Your task to perform on an android device: set the stopwatch Image 0: 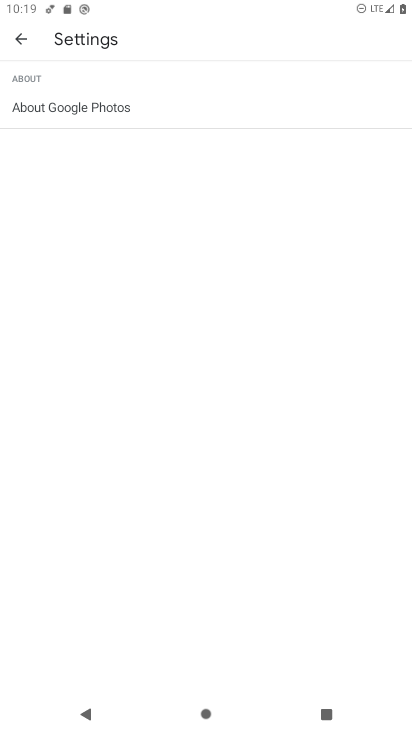
Step 0: press home button
Your task to perform on an android device: set the stopwatch Image 1: 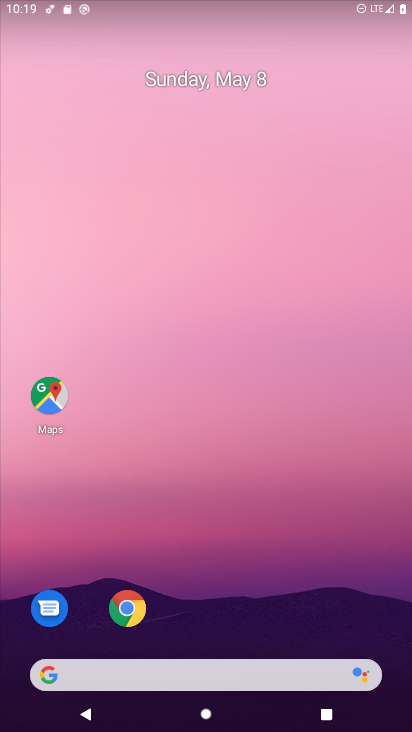
Step 1: drag from (184, 637) to (258, 144)
Your task to perform on an android device: set the stopwatch Image 2: 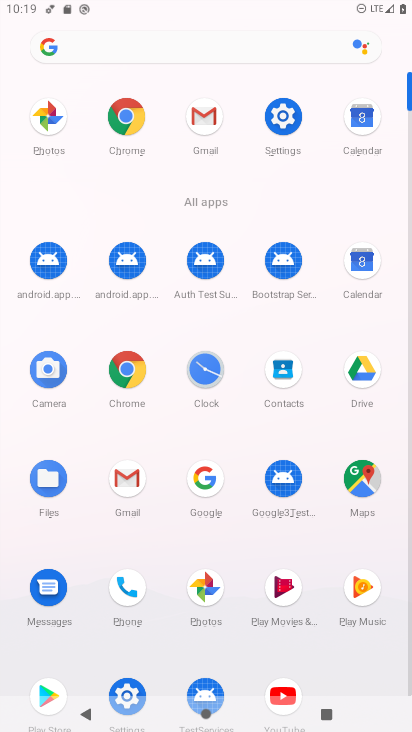
Step 2: drag from (239, 554) to (272, 233)
Your task to perform on an android device: set the stopwatch Image 3: 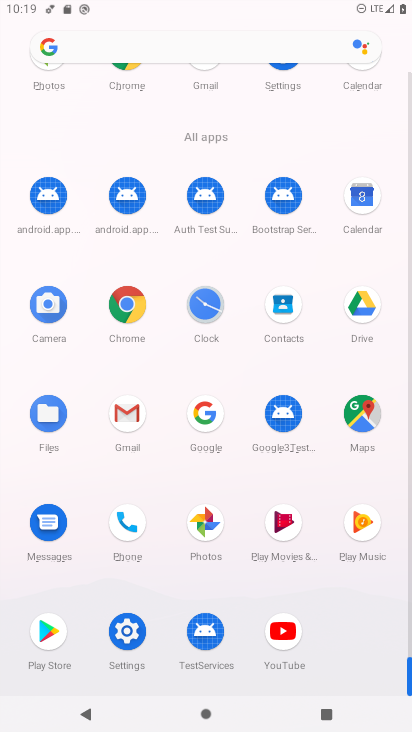
Step 3: drag from (307, 174) to (311, 344)
Your task to perform on an android device: set the stopwatch Image 4: 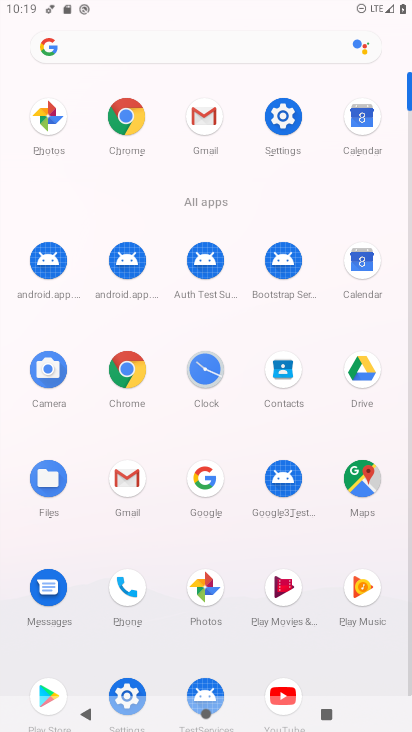
Step 4: click (208, 368)
Your task to perform on an android device: set the stopwatch Image 5: 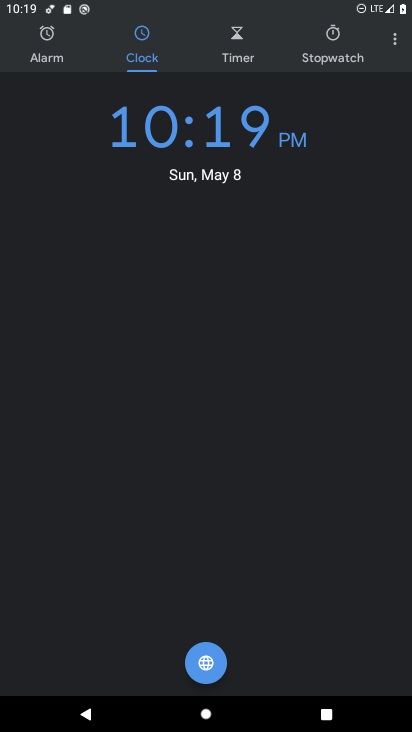
Step 5: click (346, 53)
Your task to perform on an android device: set the stopwatch Image 6: 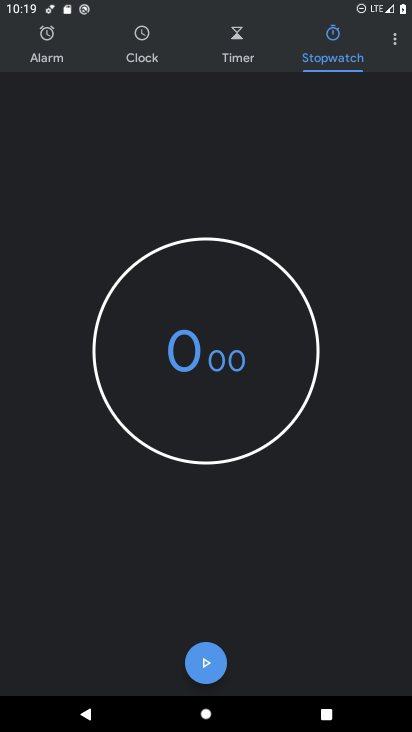
Step 6: click (215, 359)
Your task to perform on an android device: set the stopwatch Image 7: 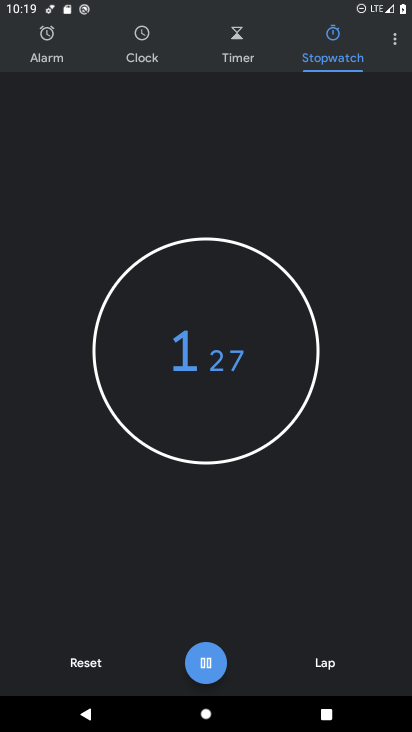
Step 7: task complete